Your task to perform on an android device: Open accessibility settings Image 0: 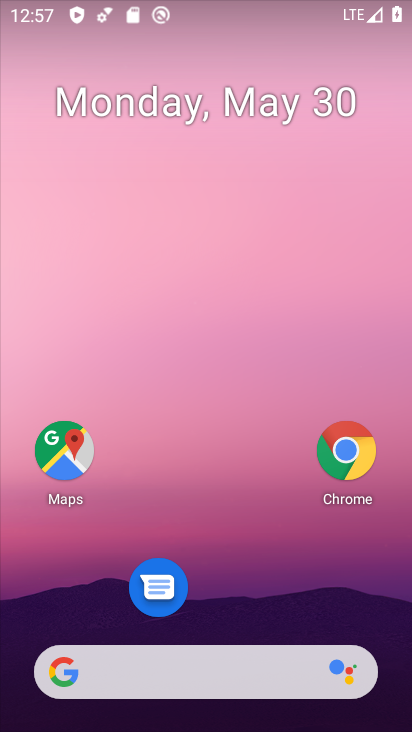
Step 0: drag from (265, 593) to (277, 16)
Your task to perform on an android device: Open accessibility settings Image 1: 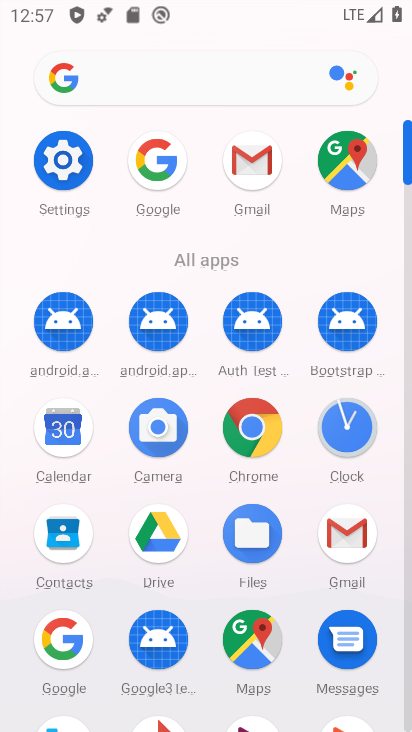
Step 1: click (67, 152)
Your task to perform on an android device: Open accessibility settings Image 2: 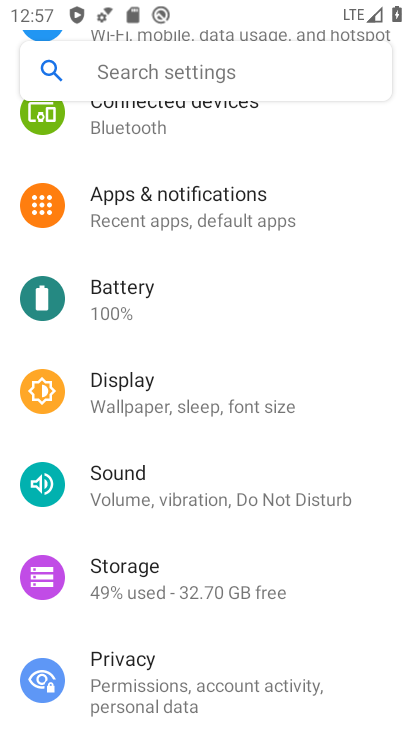
Step 2: drag from (270, 671) to (254, 5)
Your task to perform on an android device: Open accessibility settings Image 3: 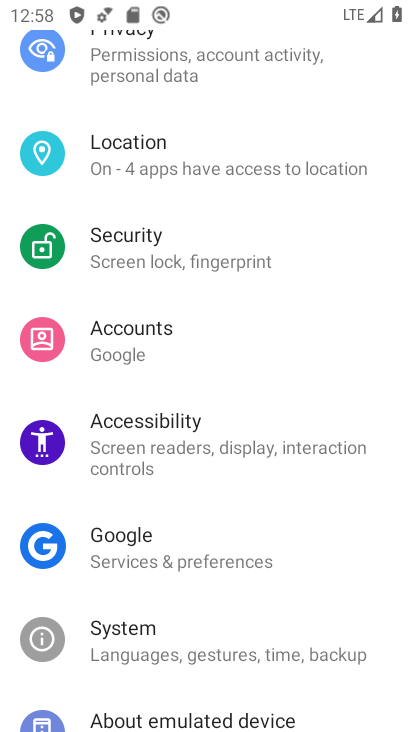
Step 3: click (124, 434)
Your task to perform on an android device: Open accessibility settings Image 4: 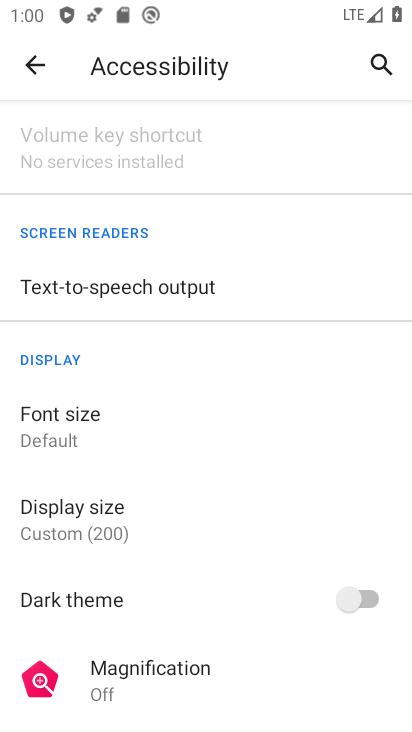
Step 4: task complete